Your task to perform on an android device: change timer sound Image 0: 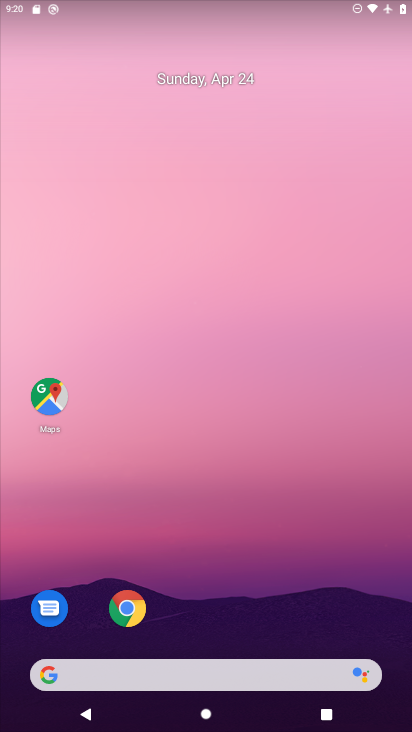
Step 0: drag from (199, 629) to (199, 155)
Your task to perform on an android device: change timer sound Image 1: 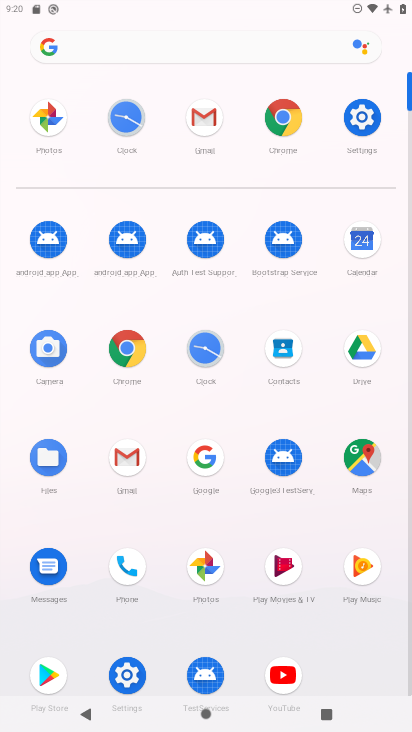
Step 1: click (127, 132)
Your task to perform on an android device: change timer sound Image 2: 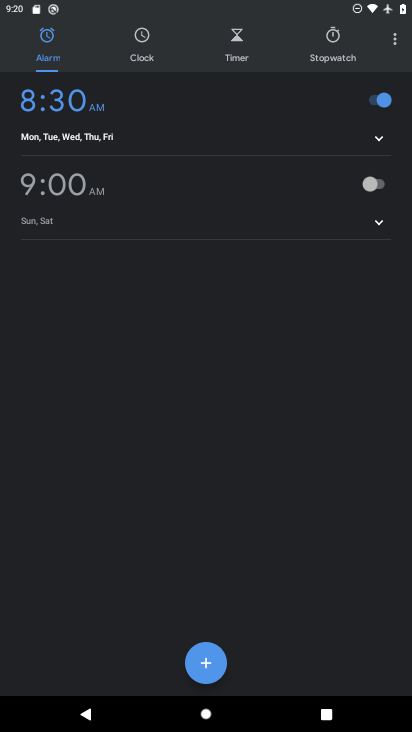
Step 2: click (393, 44)
Your task to perform on an android device: change timer sound Image 3: 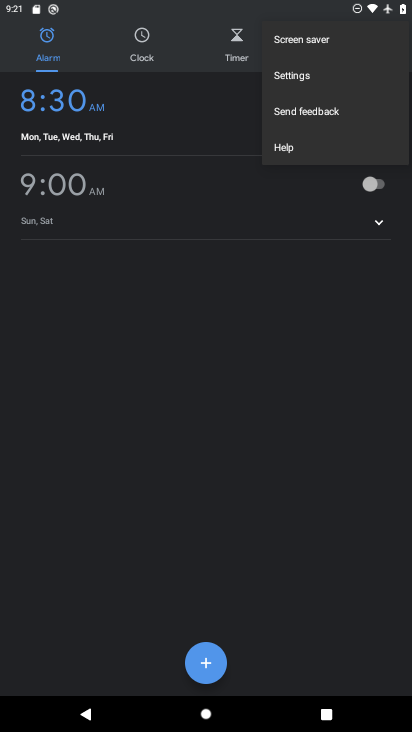
Step 3: click (314, 77)
Your task to perform on an android device: change timer sound Image 4: 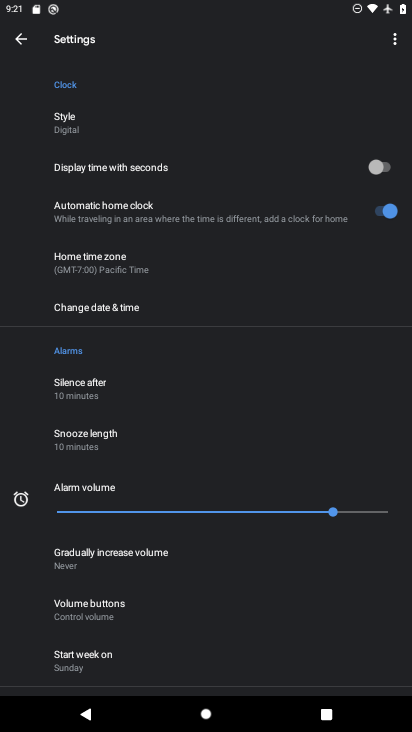
Step 4: drag from (198, 604) to (265, 233)
Your task to perform on an android device: change timer sound Image 5: 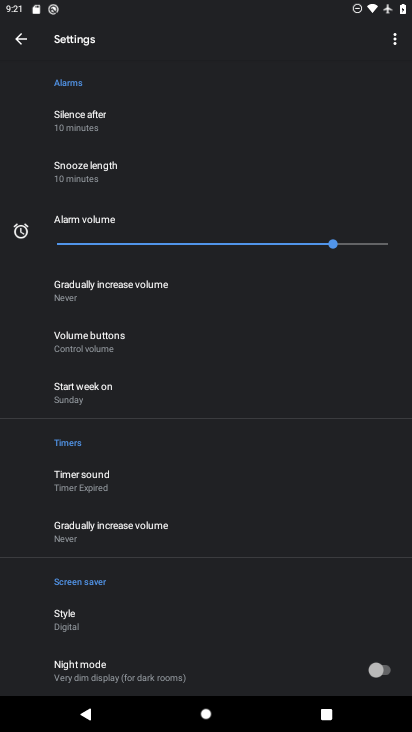
Step 5: drag from (185, 612) to (246, 328)
Your task to perform on an android device: change timer sound Image 6: 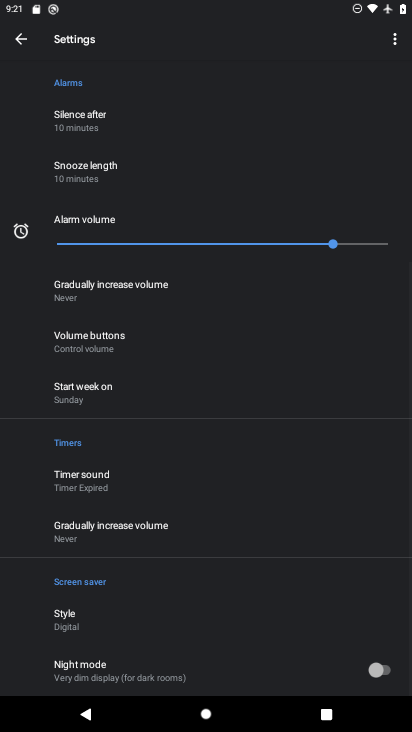
Step 6: click (159, 480)
Your task to perform on an android device: change timer sound Image 7: 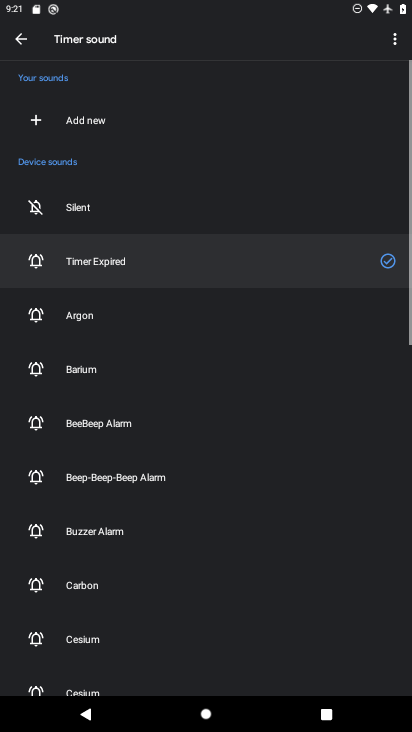
Step 7: click (115, 320)
Your task to perform on an android device: change timer sound Image 8: 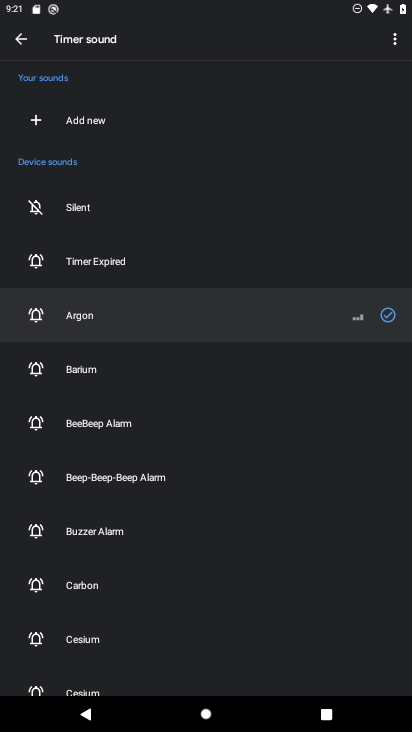
Step 8: task complete